Your task to perform on an android device: turn pop-ups off in chrome Image 0: 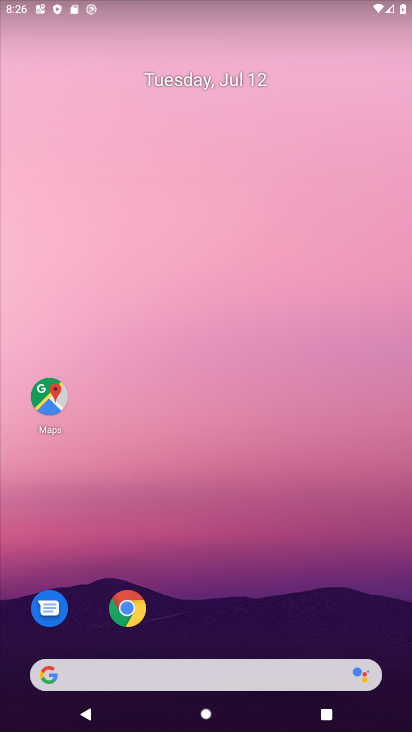
Step 0: click (137, 601)
Your task to perform on an android device: turn pop-ups off in chrome Image 1: 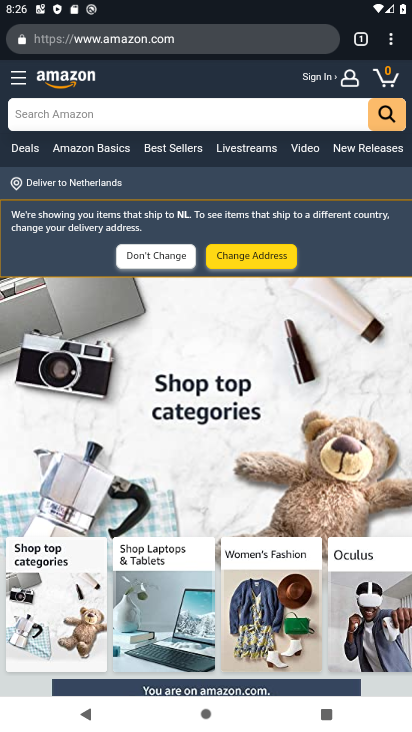
Step 1: click (399, 46)
Your task to perform on an android device: turn pop-ups off in chrome Image 2: 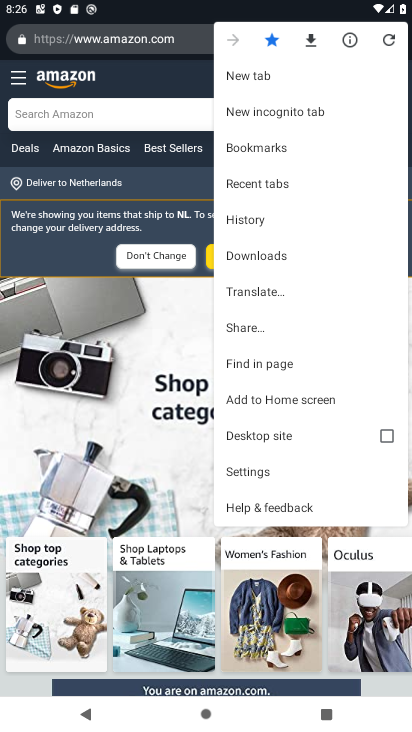
Step 2: click (263, 472)
Your task to perform on an android device: turn pop-ups off in chrome Image 3: 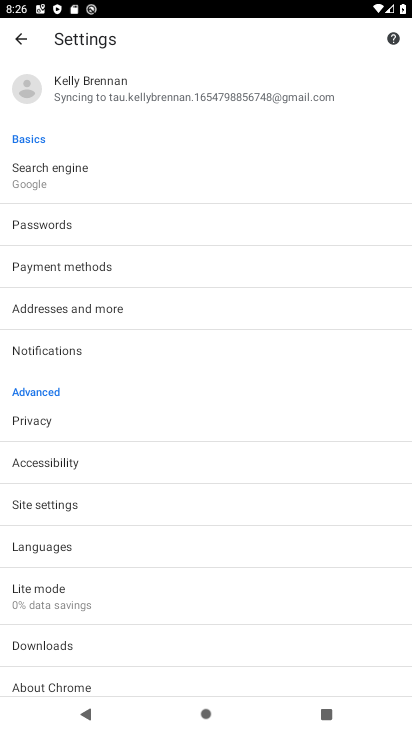
Step 3: click (259, 492)
Your task to perform on an android device: turn pop-ups off in chrome Image 4: 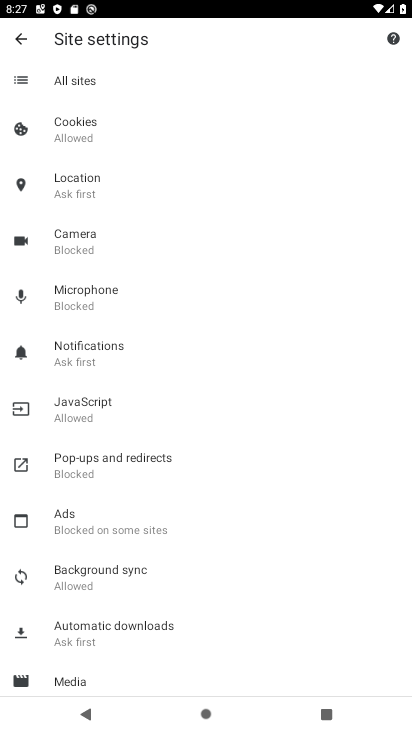
Step 4: click (169, 450)
Your task to perform on an android device: turn pop-ups off in chrome Image 5: 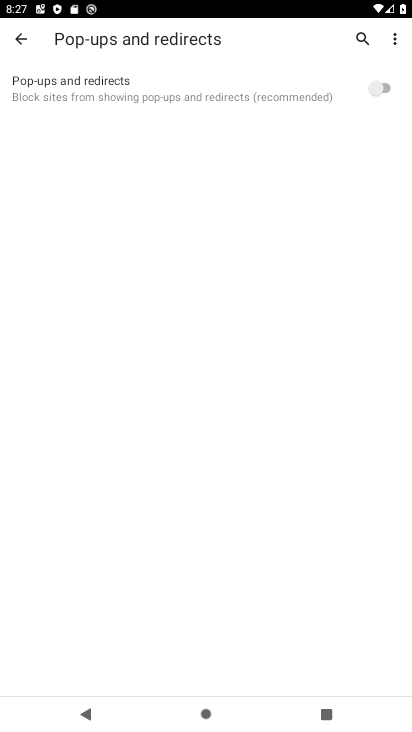
Step 5: task complete